Your task to perform on an android device: check storage Image 0: 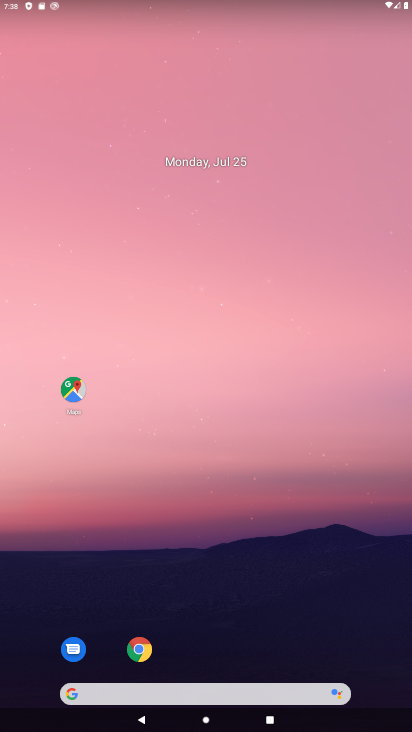
Step 0: drag from (382, 671) to (351, 173)
Your task to perform on an android device: check storage Image 1: 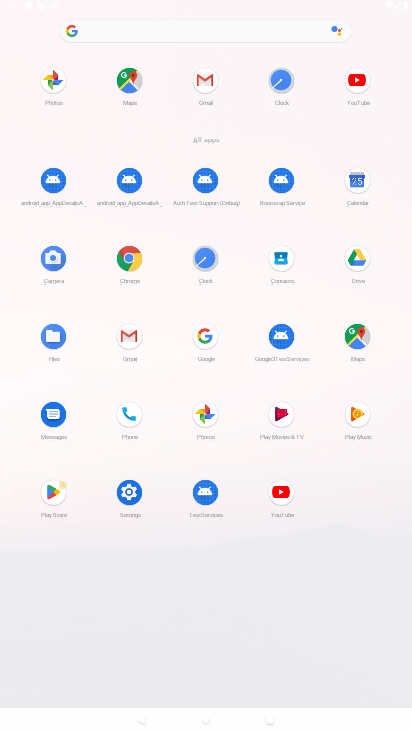
Step 1: click (127, 490)
Your task to perform on an android device: check storage Image 2: 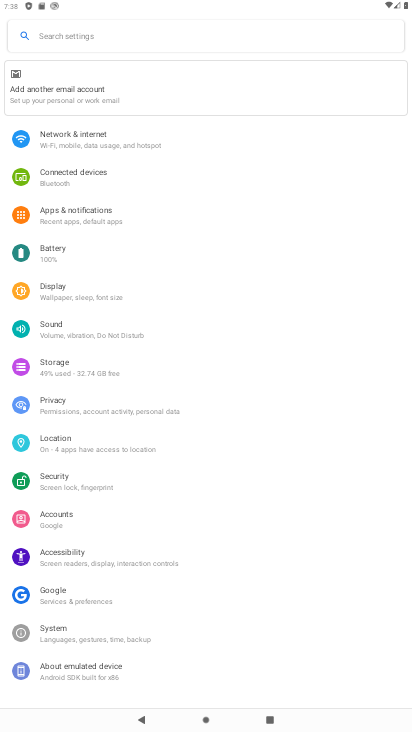
Step 2: click (48, 366)
Your task to perform on an android device: check storage Image 3: 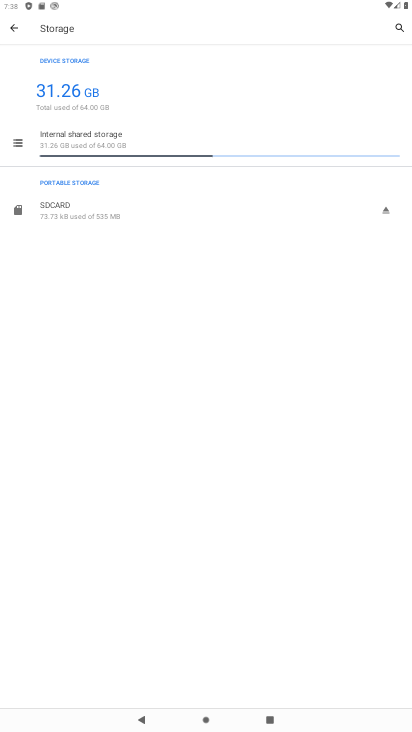
Step 3: task complete